Your task to perform on an android device: set the stopwatch Image 0: 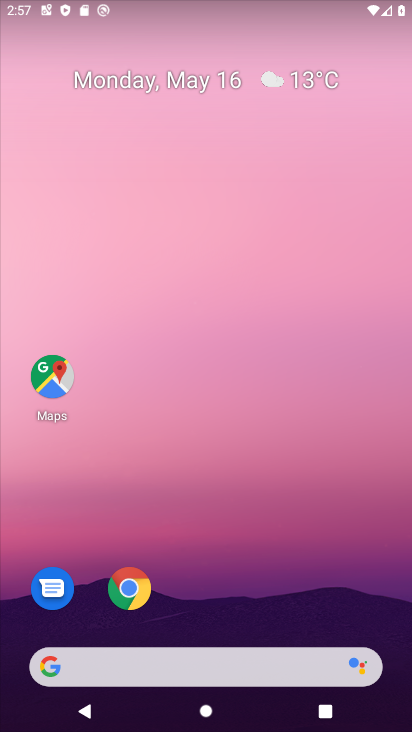
Step 0: drag from (311, 656) to (394, 126)
Your task to perform on an android device: set the stopwatch Image 1: 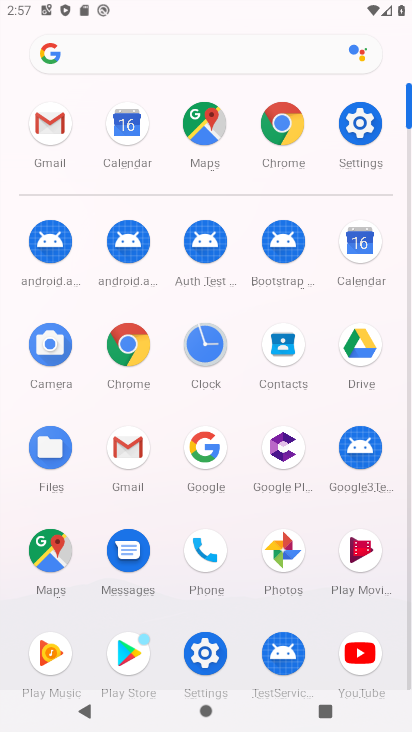
Step 1: click (206, 357)
Your task to perform on an android device: set the stopwatch Image 2: 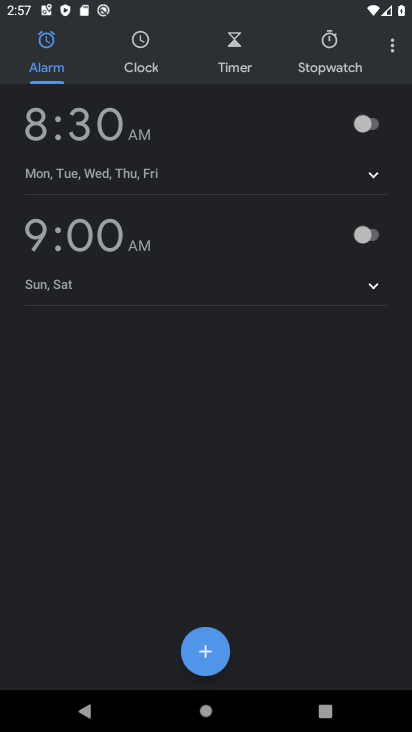
Step 2: click (319, 50)
Your task to perform on an android device: set the stopwatch Image 3: 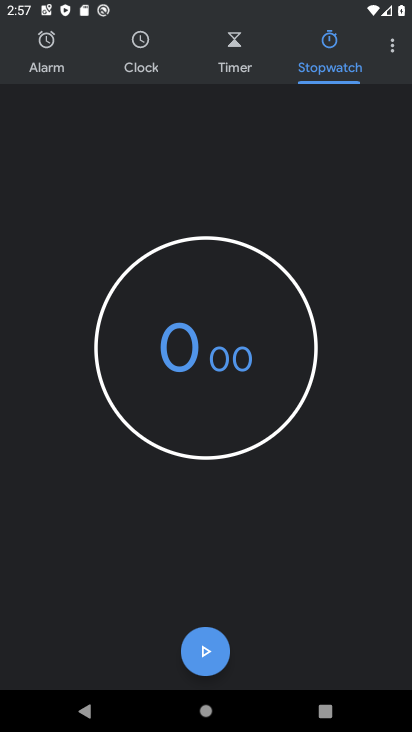
Step 3: click (208, 642)
Your task to perform on an android device: set the stopwatch Image 4: 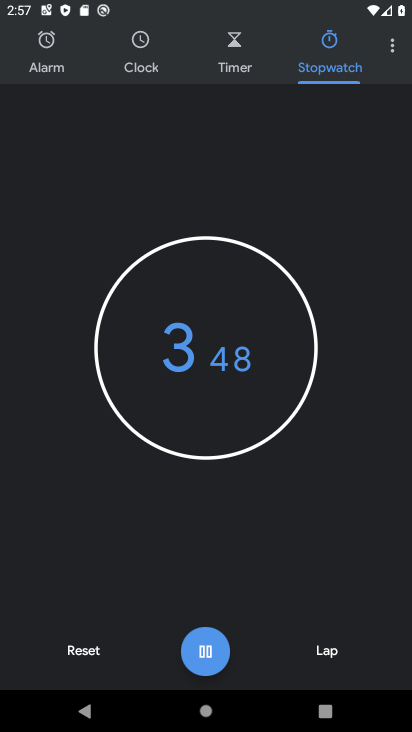
Step 4: task complete